Your task to perform on an android device: Open battery settings Image 0: 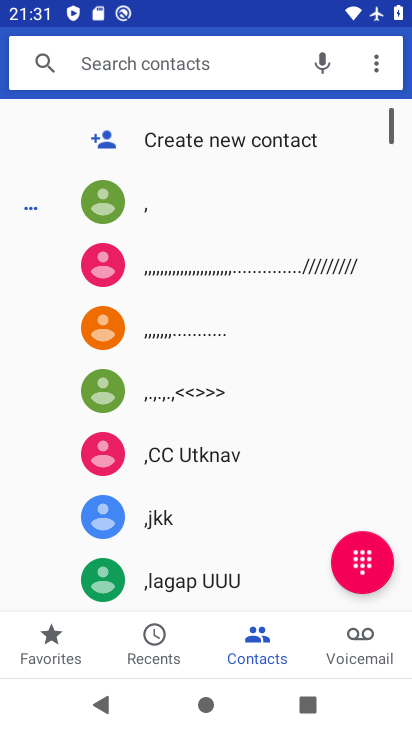
Step 0: press home button
Your task to perform on an android device: Open battery settings Image 1: 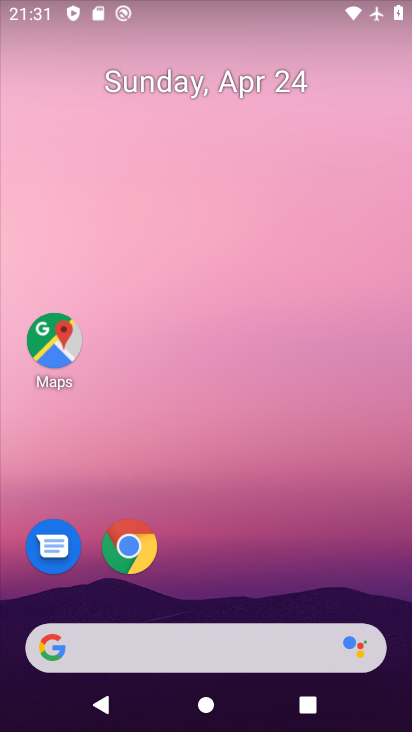
Step 1: drag from (232, 418) to (258, 216)
Your task to perform on an android device: Open battery settings Image 2: 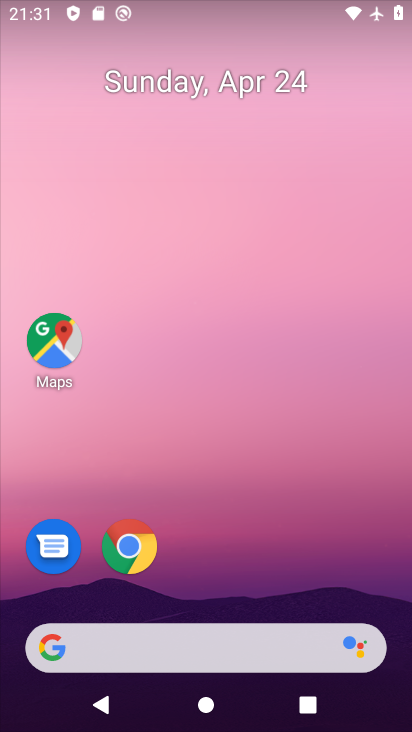
Step 2: drag from (236, 590) to (279, 251)
Your task to perform on an android device: Open battery settings Image 3: 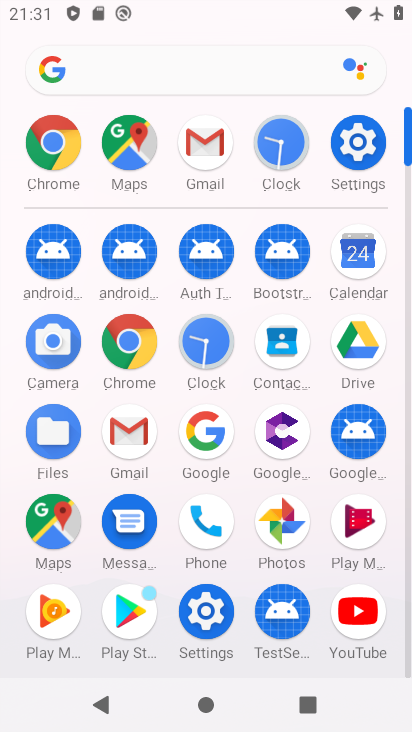
Step 3: click (205, 611)
Your task to perform on an android device: Open battery settings Image 4: 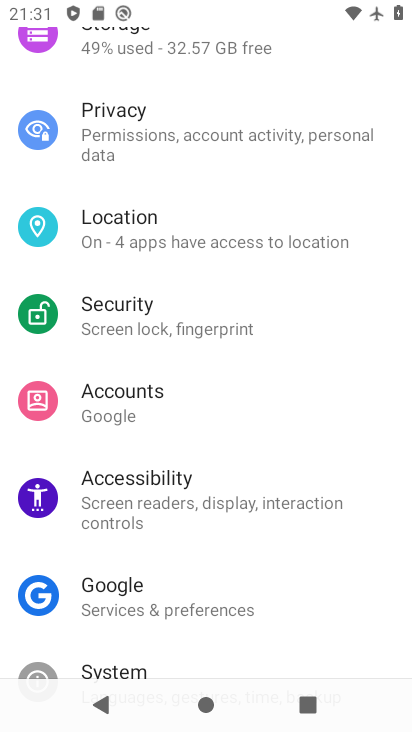
Step 4: drag from (258, 123) to (217, 608)
Your task to perform on an android device: Open battery settings Image 5: 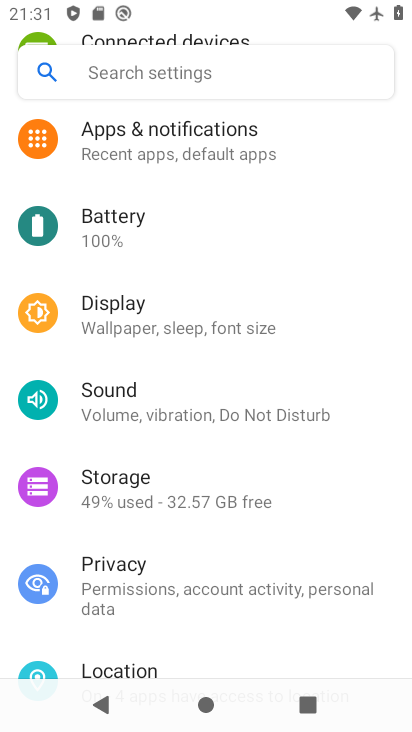
Step 5: drag from (250, 201) to (200, 630)
Your task to perform on an android device: Open battery settings Image 6: 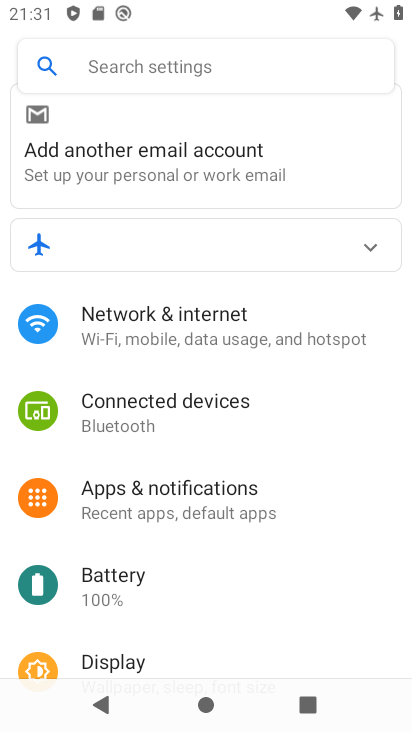
Step 6: click (201, 589)
Your task to perform on an android device: Open battery settings Image 7: 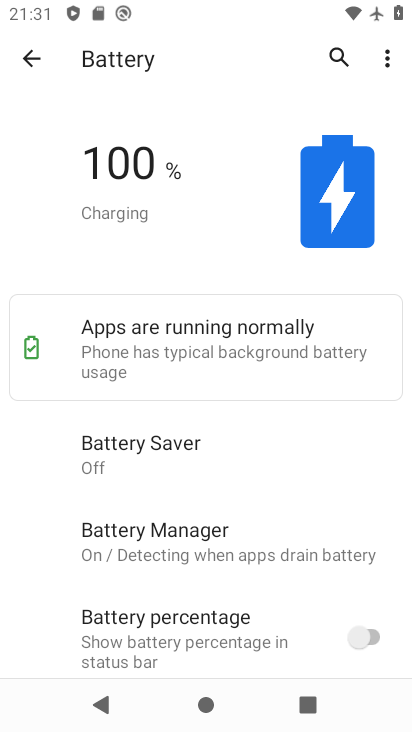
Step 7: task complete